Your task to perform on an android device: turn off location Image 0: 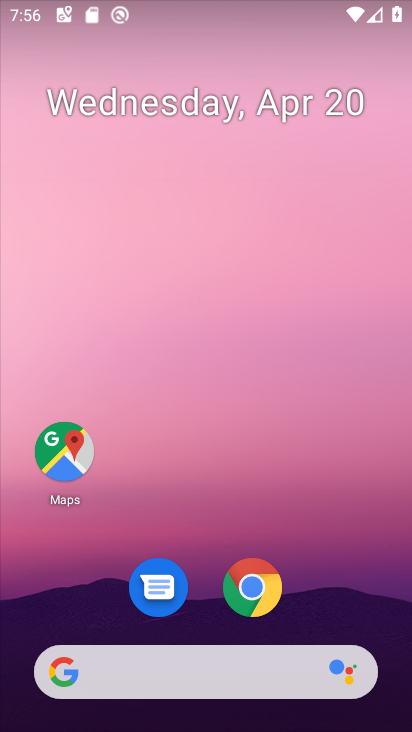
Step 0: drag from (314, 611) to (239, 108)
Your task to perform on an android device: turn off location Image 1: 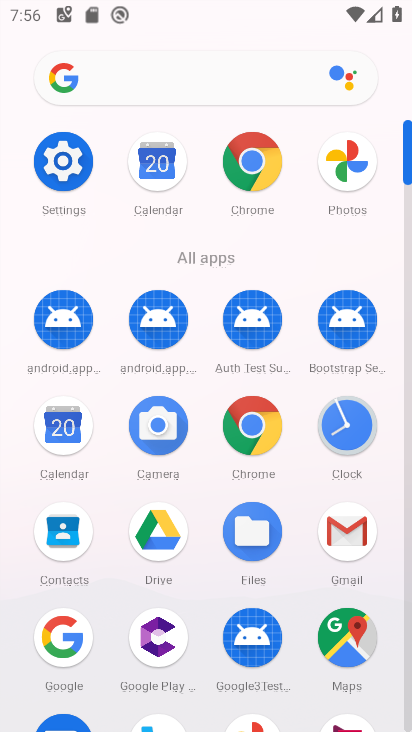
Step 1: click (52, 159)
Your task to perform on an android device: turn off location Image 2: 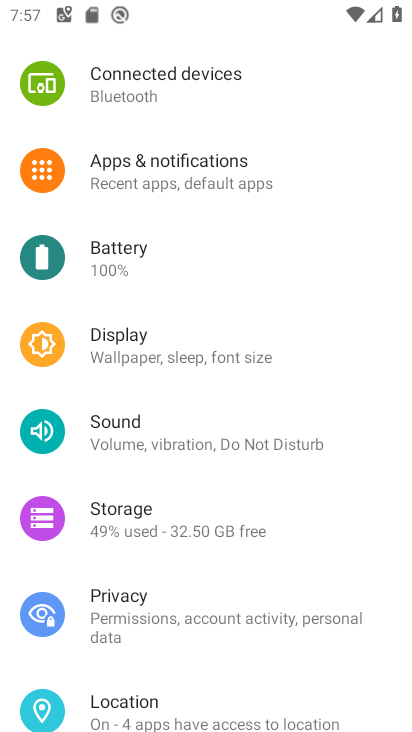
Step 2: click (265, 704)
Your task to perform on an android device: turn off location Image 3: 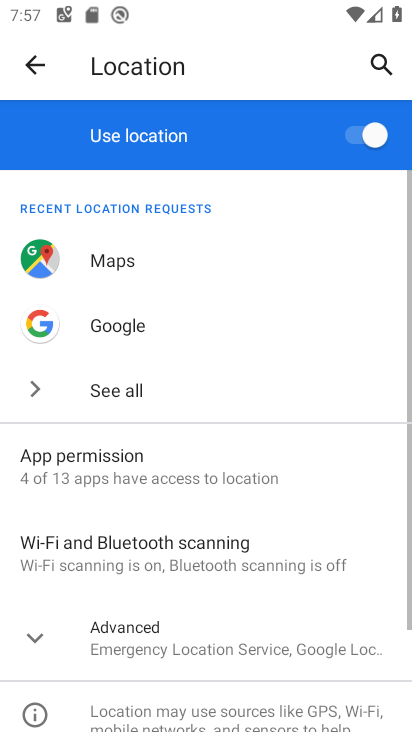
Step 3: click (371, 120)
Your task to perform on an android device: turn off location Image 4: 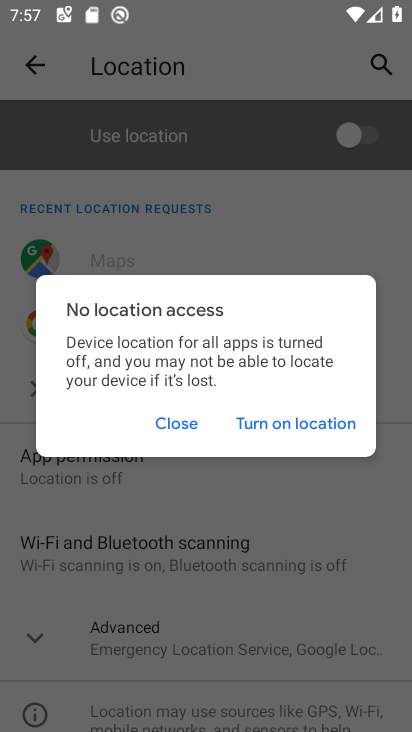
Step 4: task complete